Your task to perform on an android device: add a contact in the contacts app Image 0: 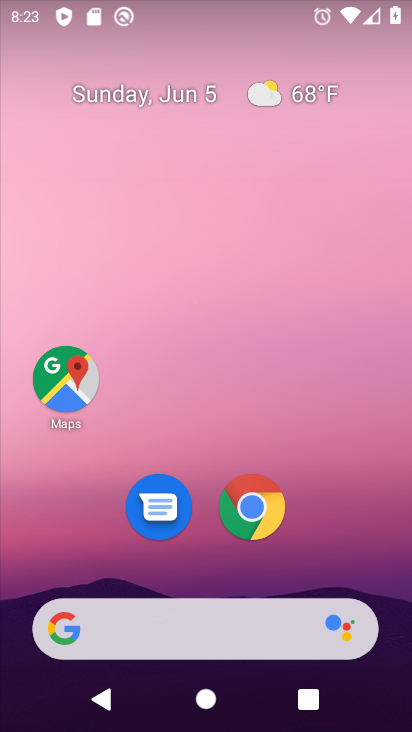
Step 0: drag from (229, 726) to (235, 28)
Your task to perform on an android device: add a contact in the contacts app Image 1: 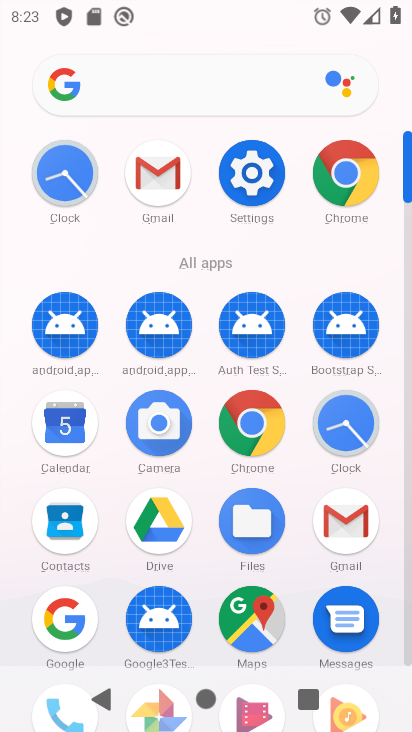
Step 1: click (60, 527)
Your task to perform on an android device: add a contact in the contacts app Image 2: 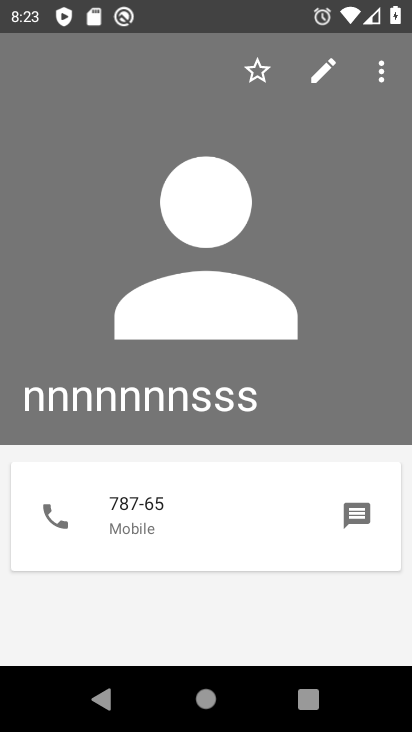
Step 2: press back button
Your task to perform on an android device: add a contact in the contacts app Image 3: 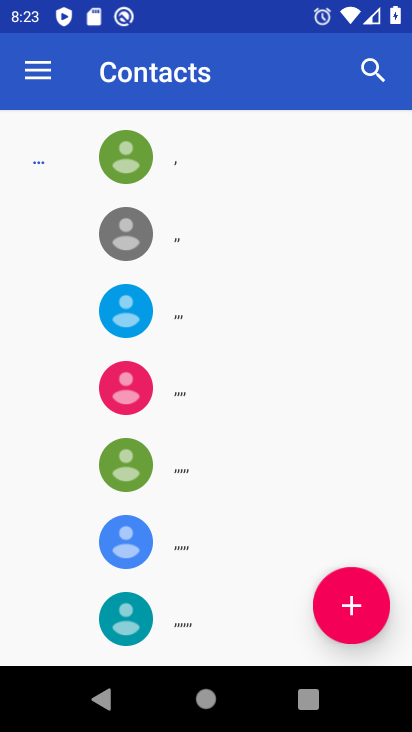
Step 3: click (357, 598)
Your task to perform on an android device: add a contact in the contacts app Image 4: 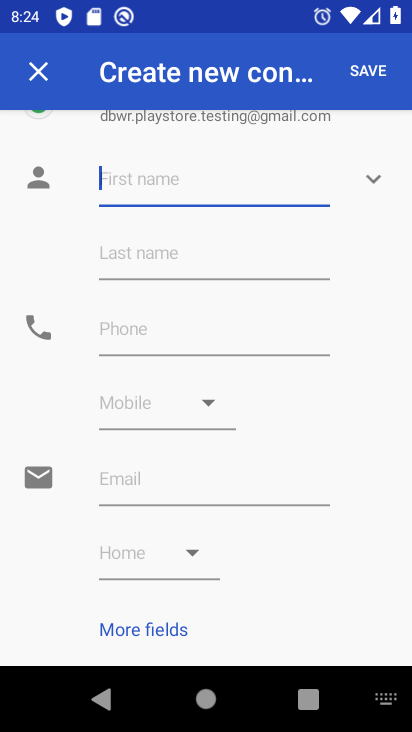
Step 4: type "compla"
Your task to perform on an android device: add a contact in the contacts app Image 5: 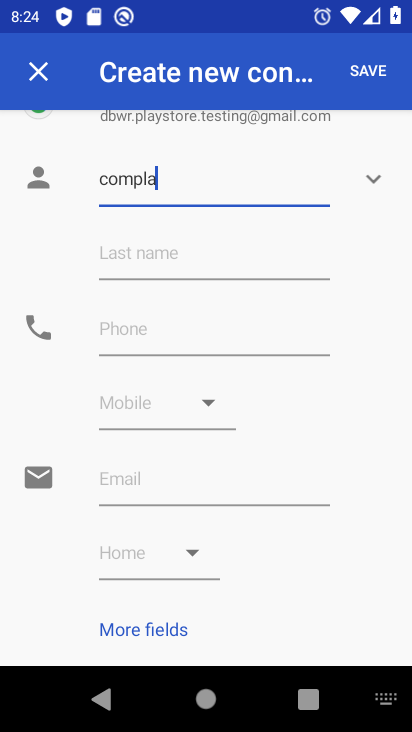
Step 5: click (152, 324)
Your task to perform on an android device: add a contact in the contacts app Image 6: 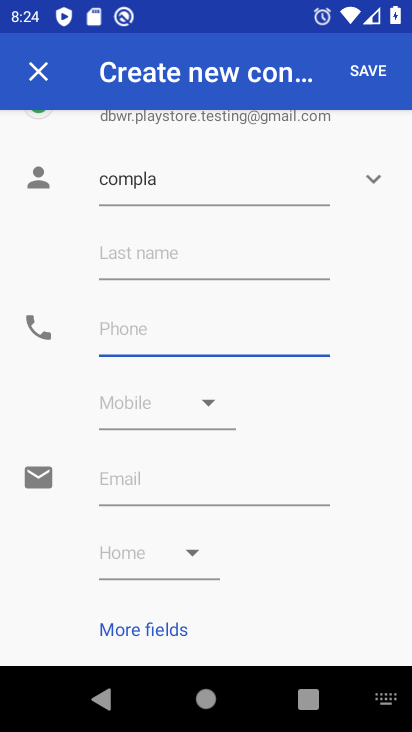
Step 6: type "9898989"
Your task to perform on an android device: add a contact in the contacts app Image 7: 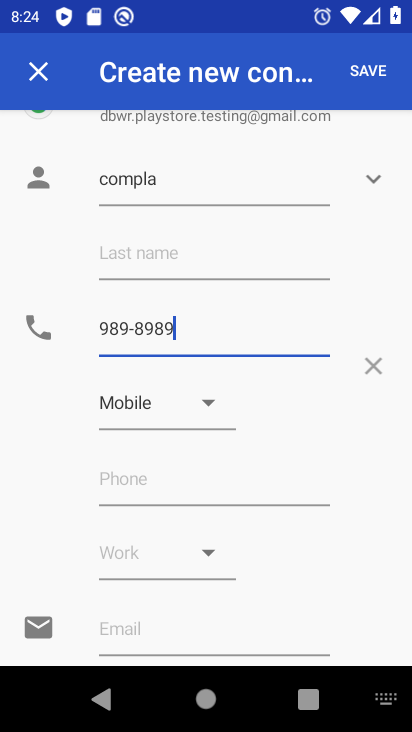
Step 7: click (372, 71)
Your task to perform on an android device: add a contact in the contacts app Image 8: 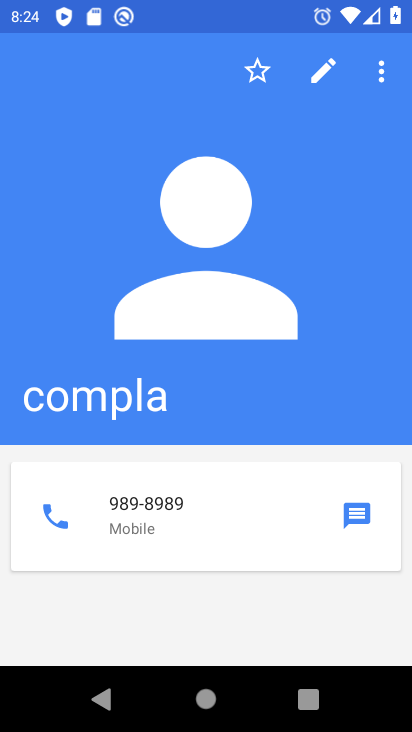
Step 8: task complete